Your task to perform on an android device: Show me popular games on the Play Store Image 0: 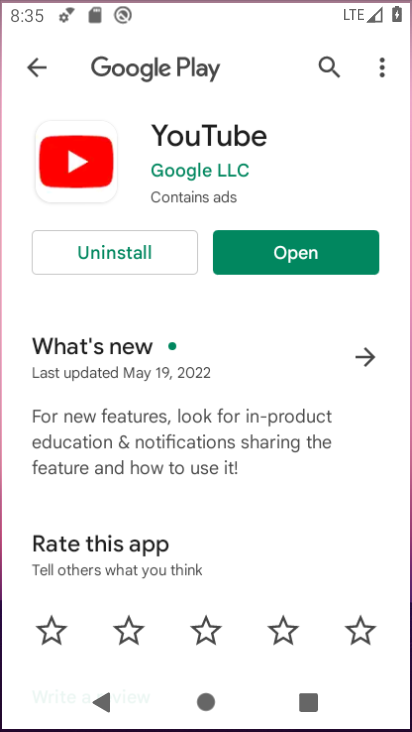
Step 0: press home button
Your task to perform on an android device: Show me popular games on the Play Store Image 1: 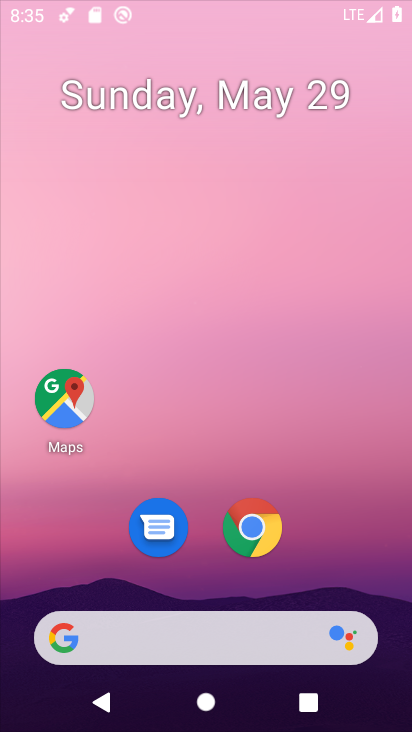
Step 1: press home button
Your task to perform on an android device: Show me popular games on the Play Store Image 2: 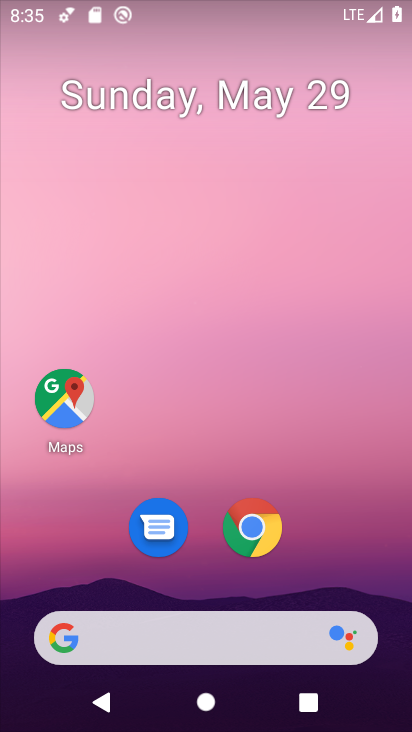
Step 2: drag from (217, 583) to (233, 31)
Your task to perform on an android device: Show me popular games on the Play Store Image 3: 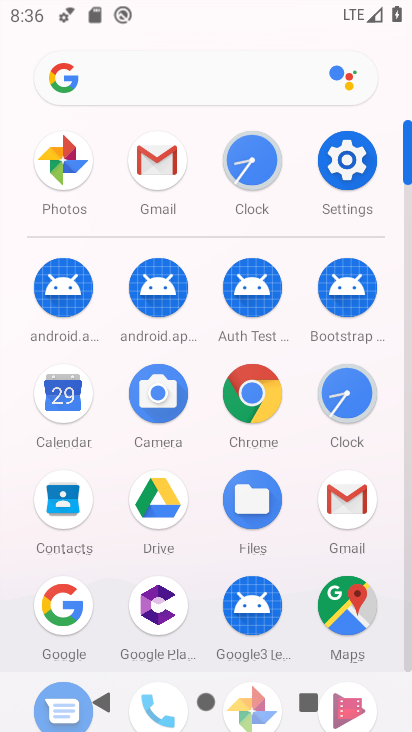
Step 3: drag from (197, 640) to (195, 176)
Your task to perform on an android device: Show me popular games on the Play Store Image 4: 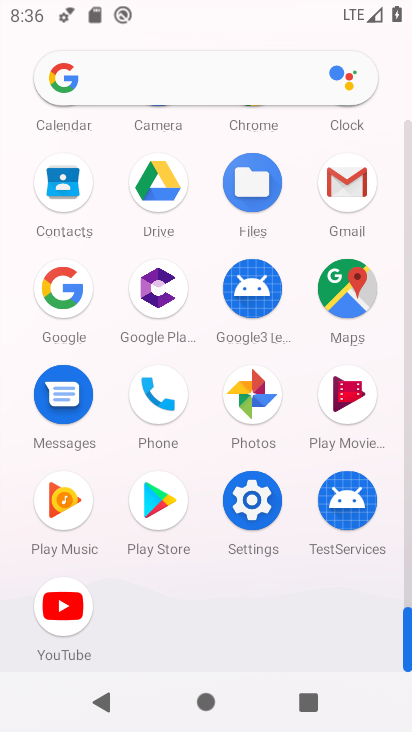
Step 4: click (158, 500)
Your task to perform on an android device: Show me popular games on the Play Store Image 5: 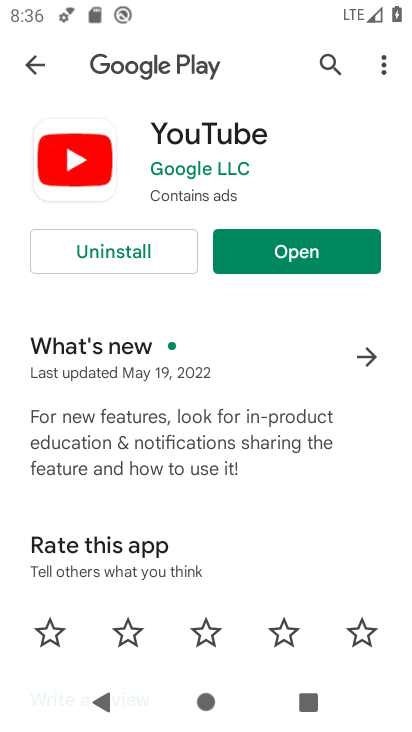
Step 5: click (31, 65)
Your task to perform on an android device: Show me popular games on the Play Store Image 6: 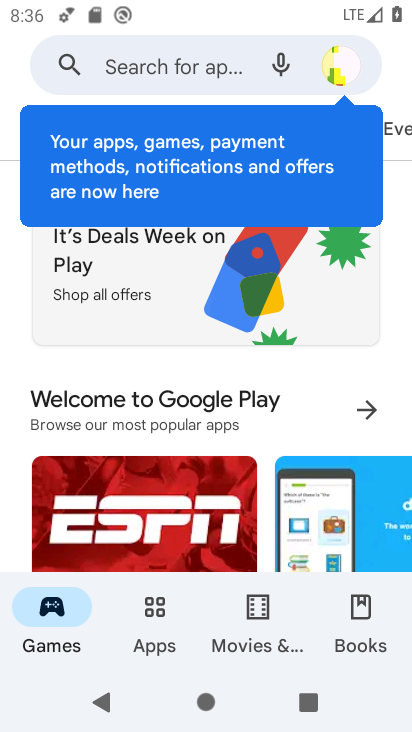
Step 6: drag from (223, 461) to (221, 117)
Your task to perform on an android device: Show me popular games on the Play Store Image 7: 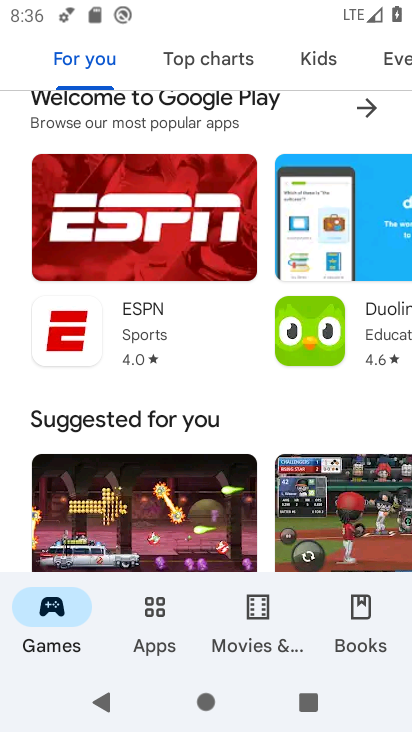
Step 7: drag from (269, 511) to (254, 122)
Your task to perform on an android device: Show me popular games on the Play Store Image 8: 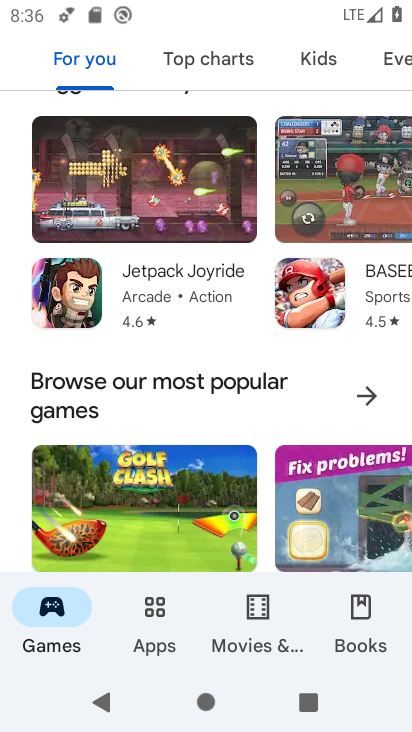
Step 8: click (361, 392)
Your task to perform on an android device: Show me popular games on the Play Store Image 9: 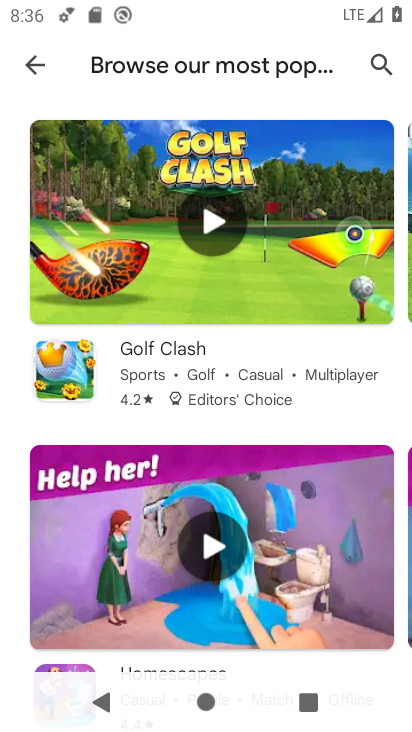
Step 9: task complete